Your task to perform on an android device: open chrome privacy settings Image 0: 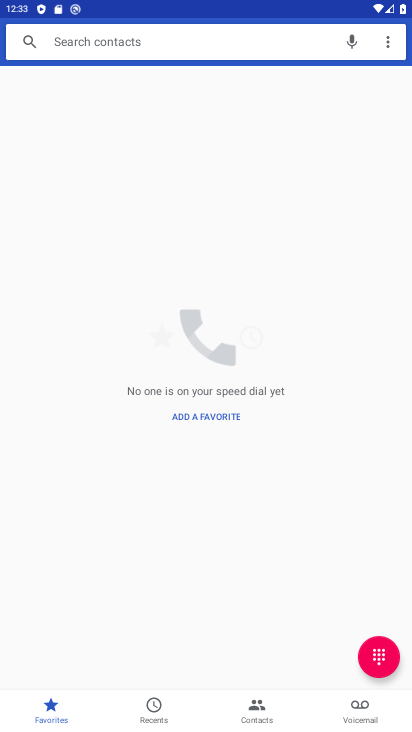
Step 0: press home button
Your task to perform on an android device: open chrome privacy settings Image 1: 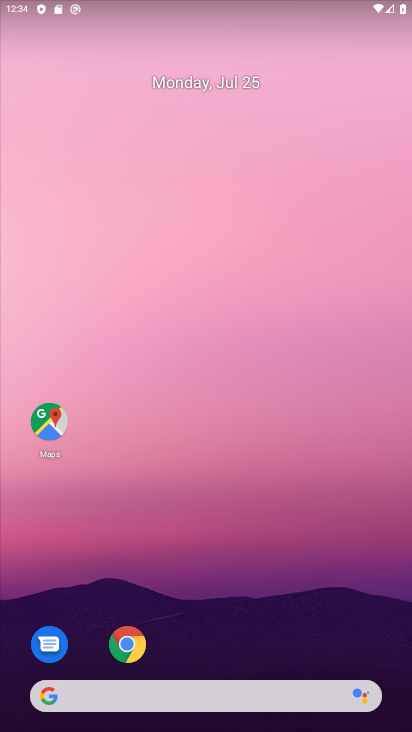
Step 1: drag from (208, 723) to (220, 182)
Your task to perform on an android device: open chrome privacy settings Image 2: 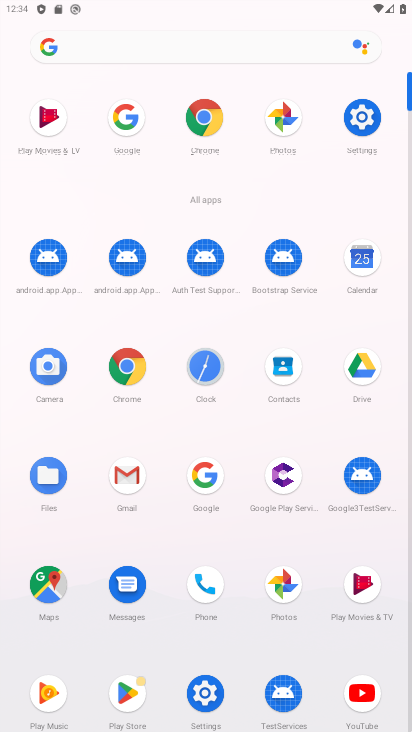
Step 2: click (210, 116)
Your task to perform on an android device: open chrome privacy settings Image 3: 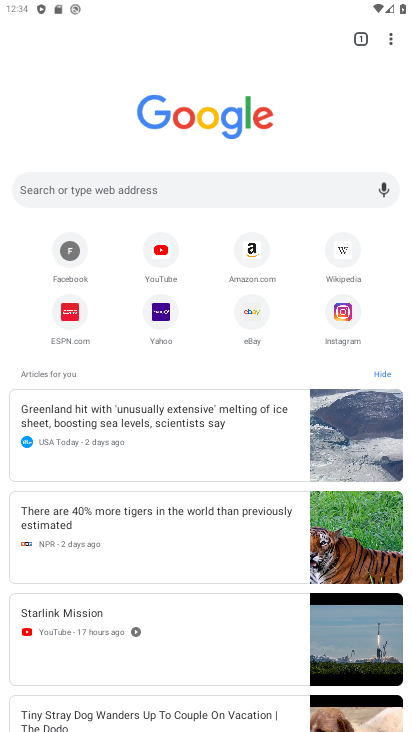
Step 3: click (391, 42)
Your task to perform on an android device: open chrome privacy settings Image 4: 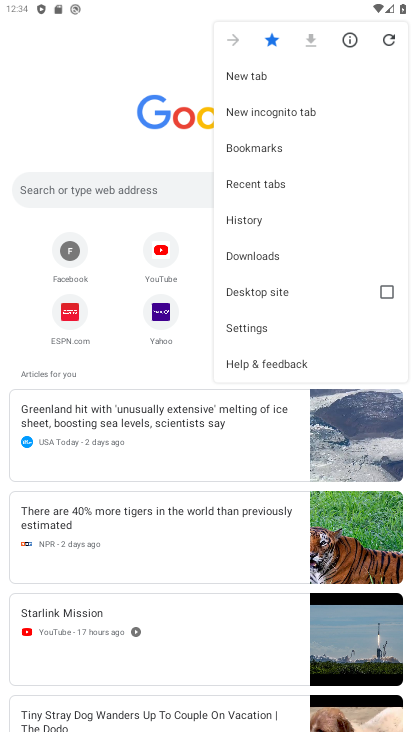
Step 4: click (242, 326)
Your task to perform on an android device: open chrome privacy settings Image 5: 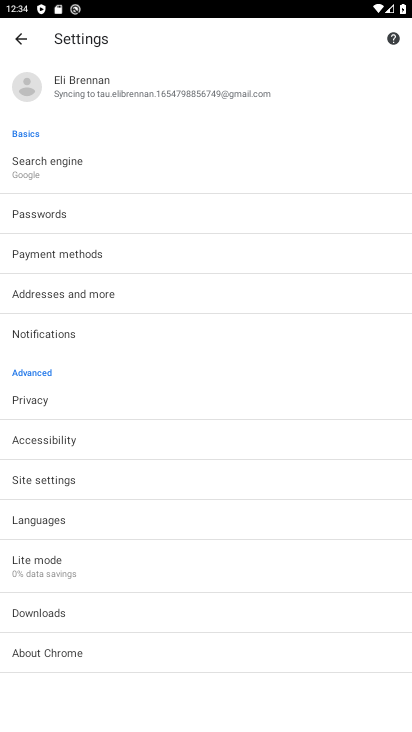
Step 5: click (31, 399)
Your task to perform on an android device: open chrome privacy settings Image 6: 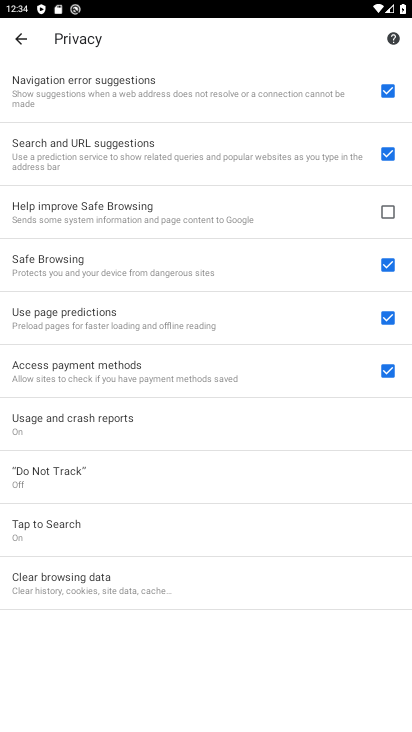
Step 6: task complete